Your task to perform on an android device: turn on priority inbox in the gmail app Image 0: 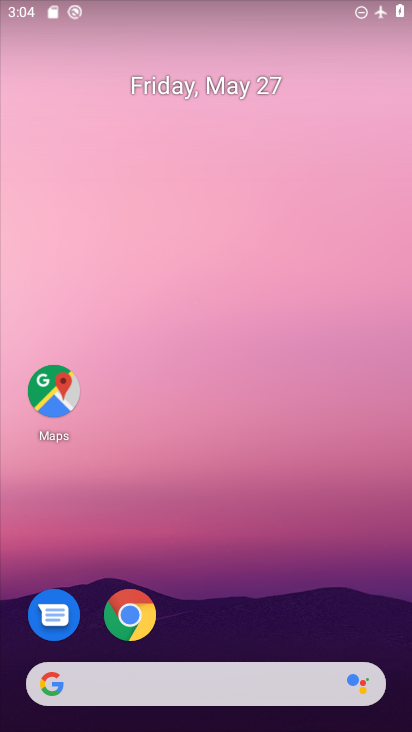
Step 0: drag from (222, 243) to (122, 2)
Your task to perform on an android device: turn on priority inbox in the gmail app Image 1: 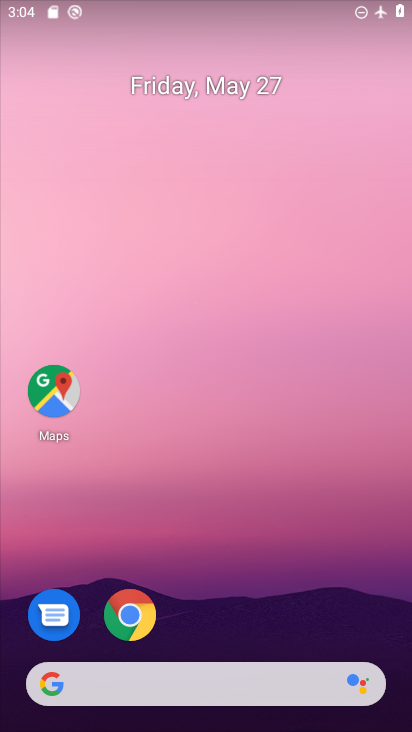
Step 1: drag from (254, 490) to (140, 35)
Your task to perform on an android device: turn on priority inbox in the gmail app Image 2: 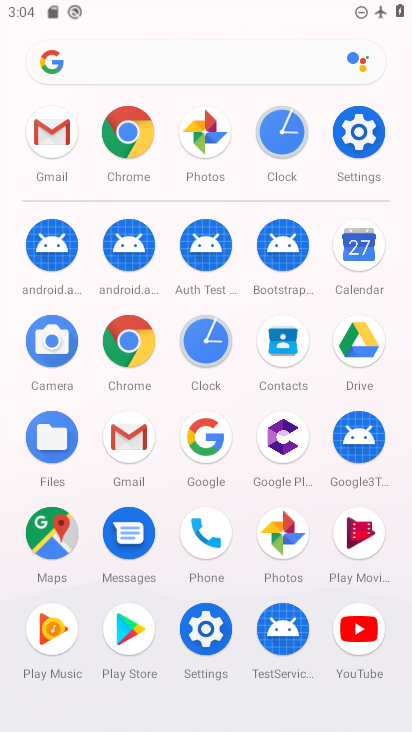
Step 2: click (54, 151)
Your task to perform on an android device: turn on priority inbox in the gmail app Image 3: 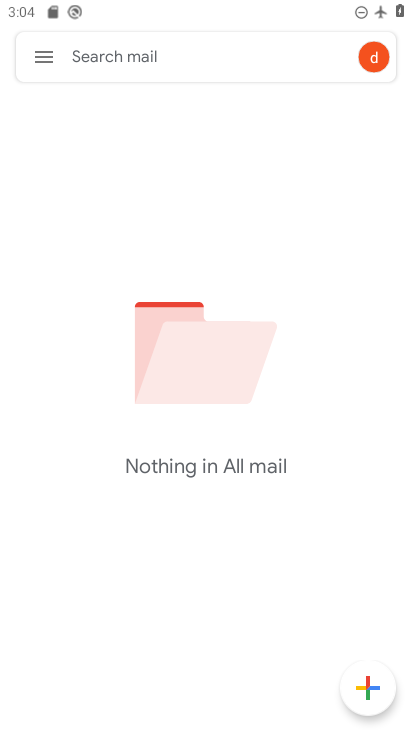
Step 3: click (41, 62)
Your task to perform on an android device: turn on priority inbox in the gmail app Image 4: 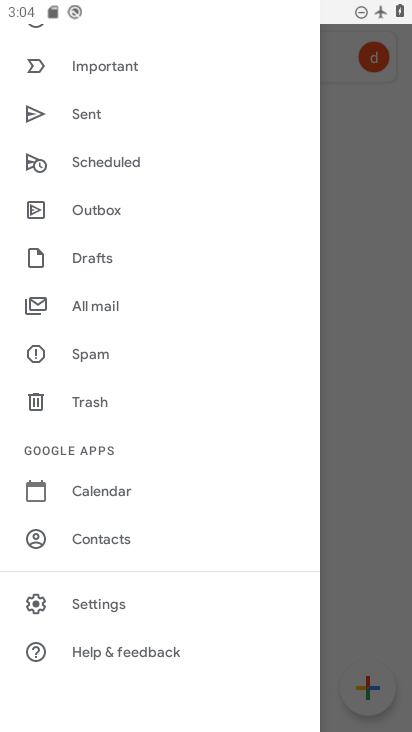
Step 4: click (146, 615)
Your task to perform on an android device: turn on priority inbox in the gmail app Image 5: 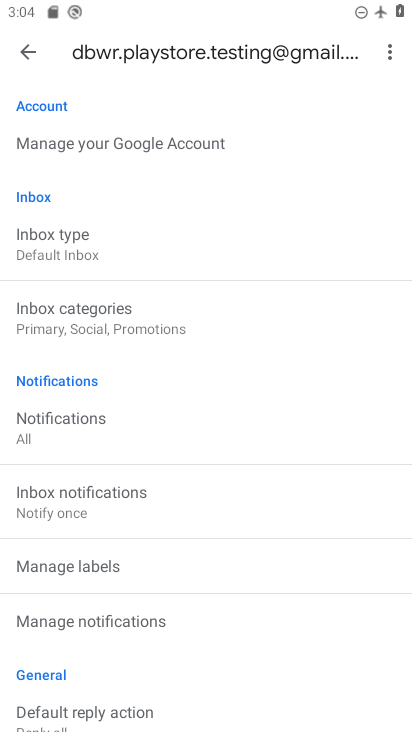
Step 5: click (101, 248)
Your task to perform on an android device: turn on priority inbox in the gmail app Image 6: 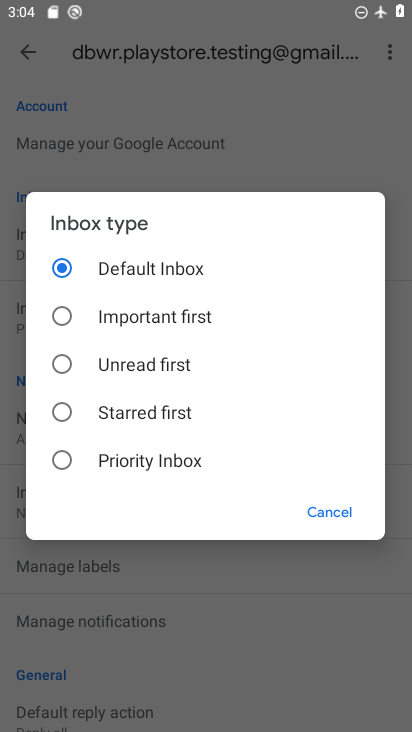
Step 6: click (168, 460)
Your task to perform on an android device: turn on priority inbox in the gmail app Image 7: 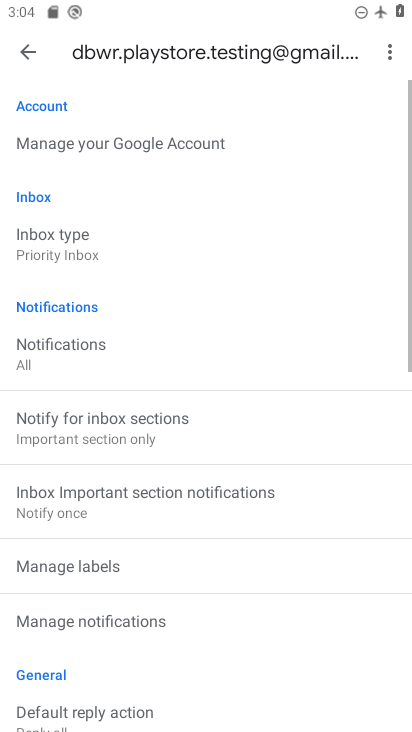
Step 7: task complete